Your task to perform on an android device: open app "Spotify: Music and Podcasts" (install if not already installed) Image 0: 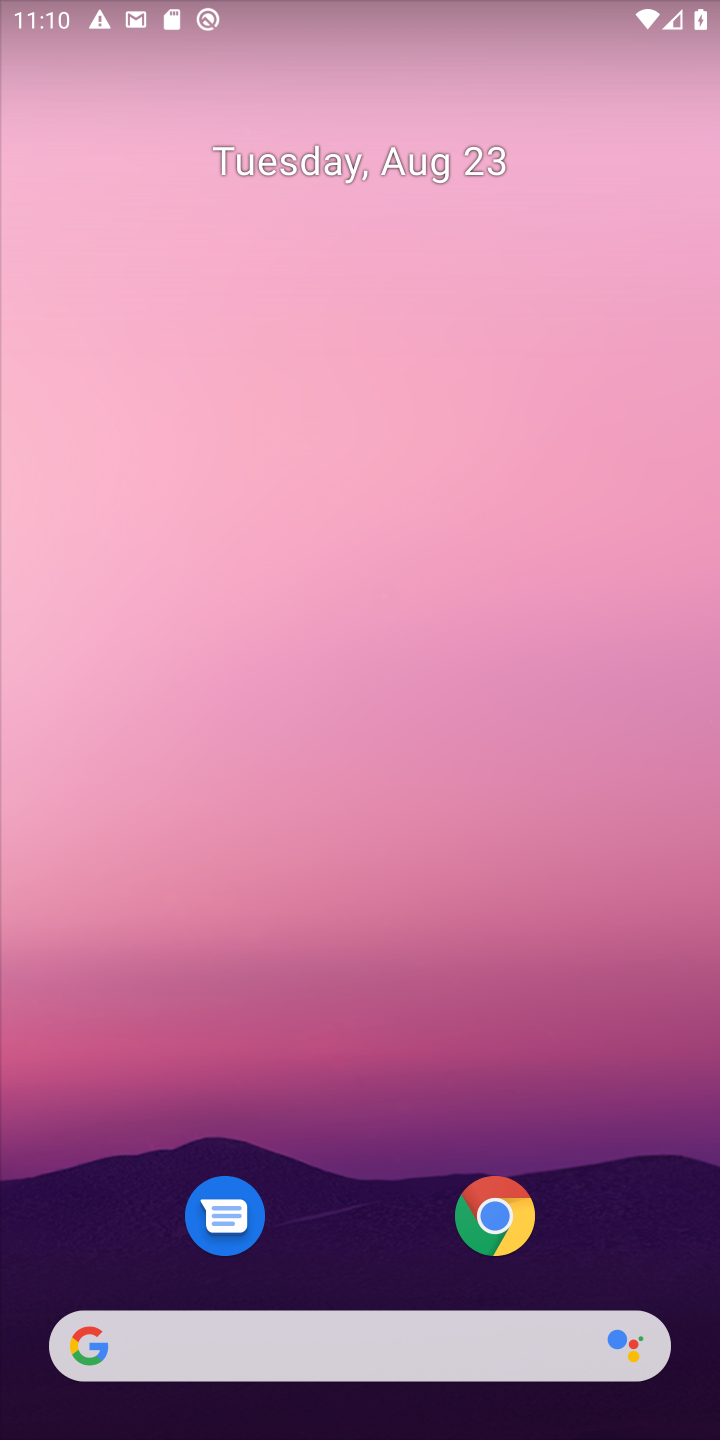
Step 0: press home button
Your task to perform on an android device: open app "Spotify: Music and Podcasts" (install if not already installed) Image 1: 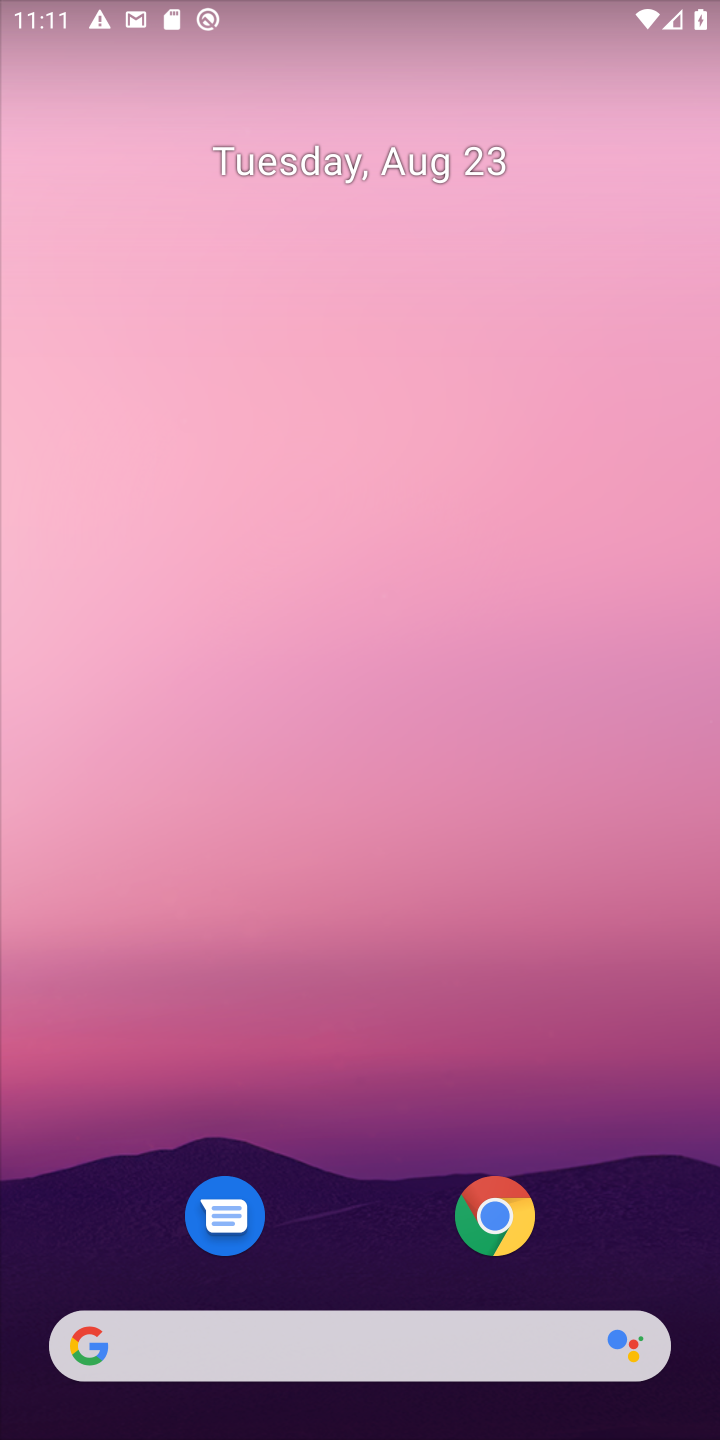
Step 1: drag from (315, 1355) to (618, 261)
Your task to perform on an android device: open app "Spotify: Music and Podcasts" (install if not already installed) Image 2: 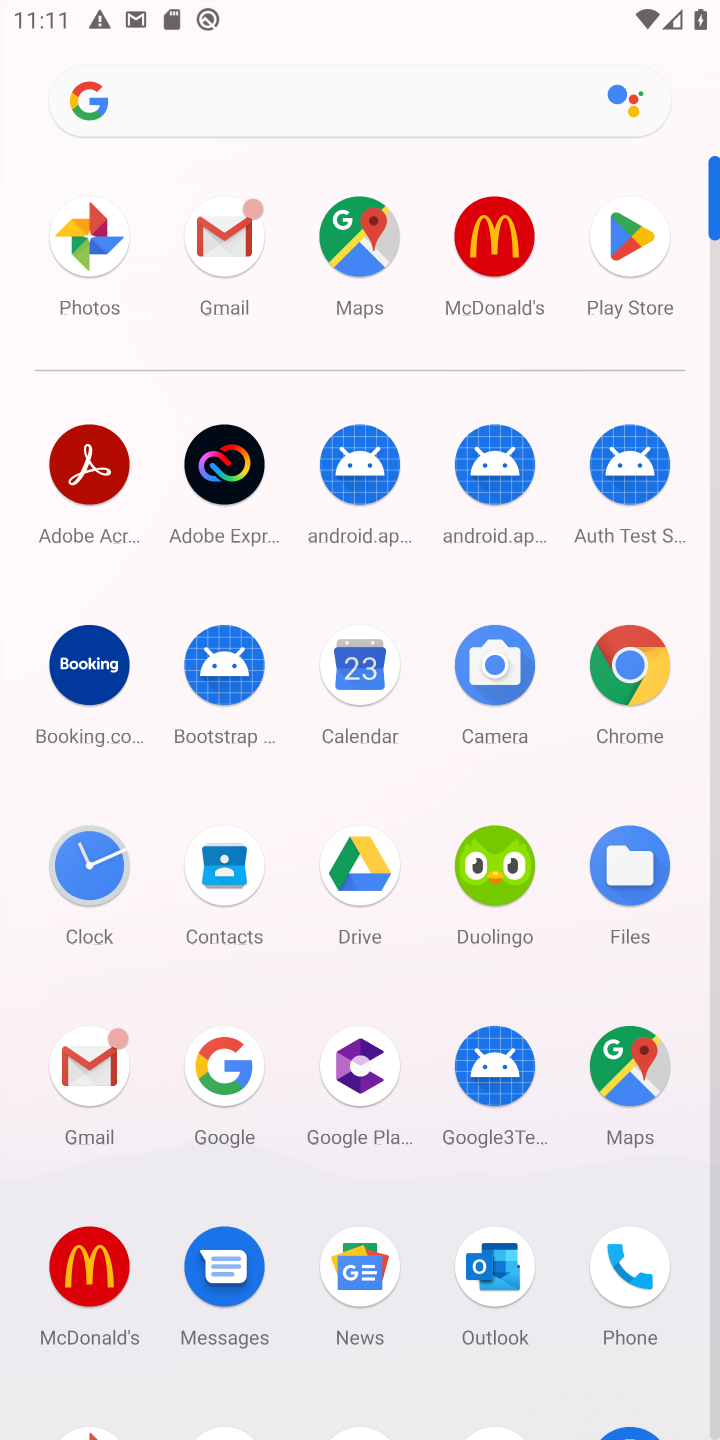
Step 2: click (620, 228)
Your task to perform on an android device: open app "Spotify: Music and Podcasts" (install if not already installed) Image 3: 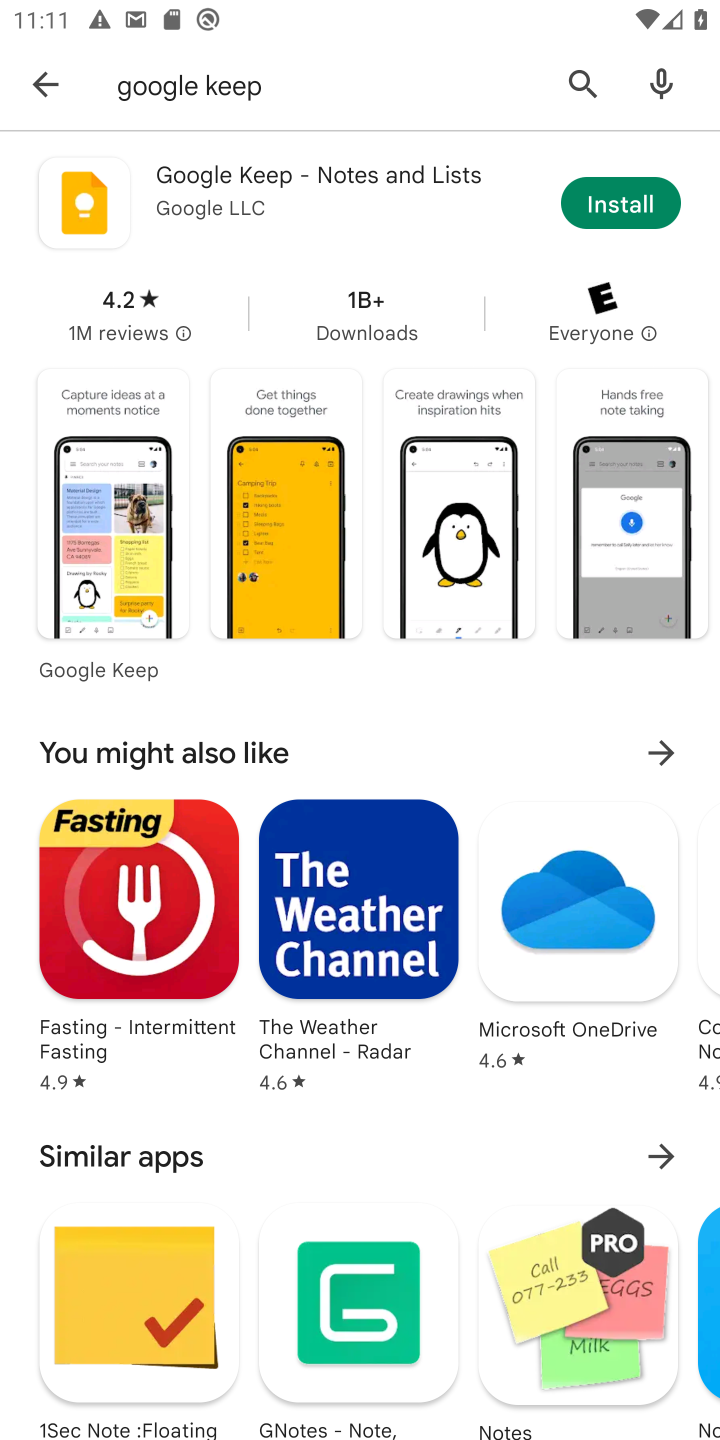
Step 3: press back button
Your task to perform on an android device: open app "Spotify: Music and Podcasts" (install if not already installed) Image 4: 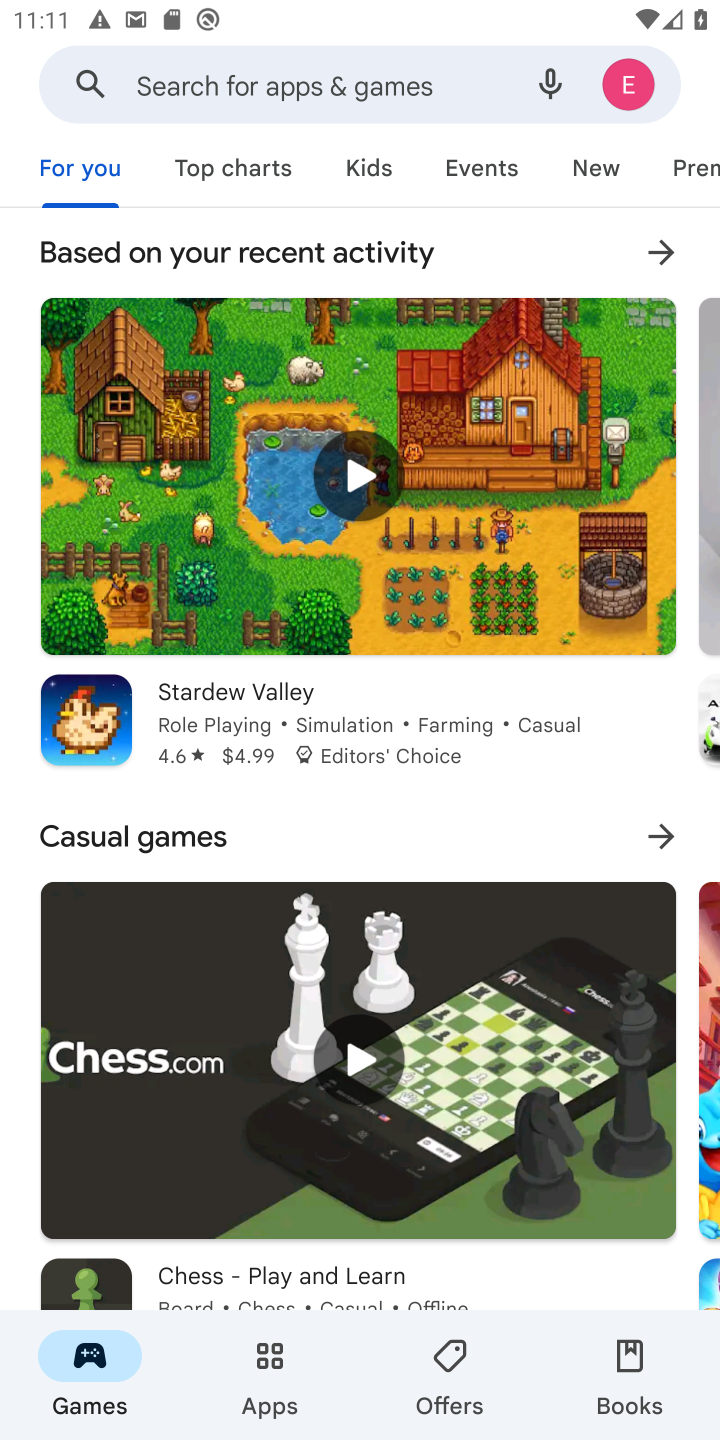
Step 4: click (413, 89)
Your task to perform on an android device: open app "Spotify: Music and Podcasts" (install if not already installed) Image 5: 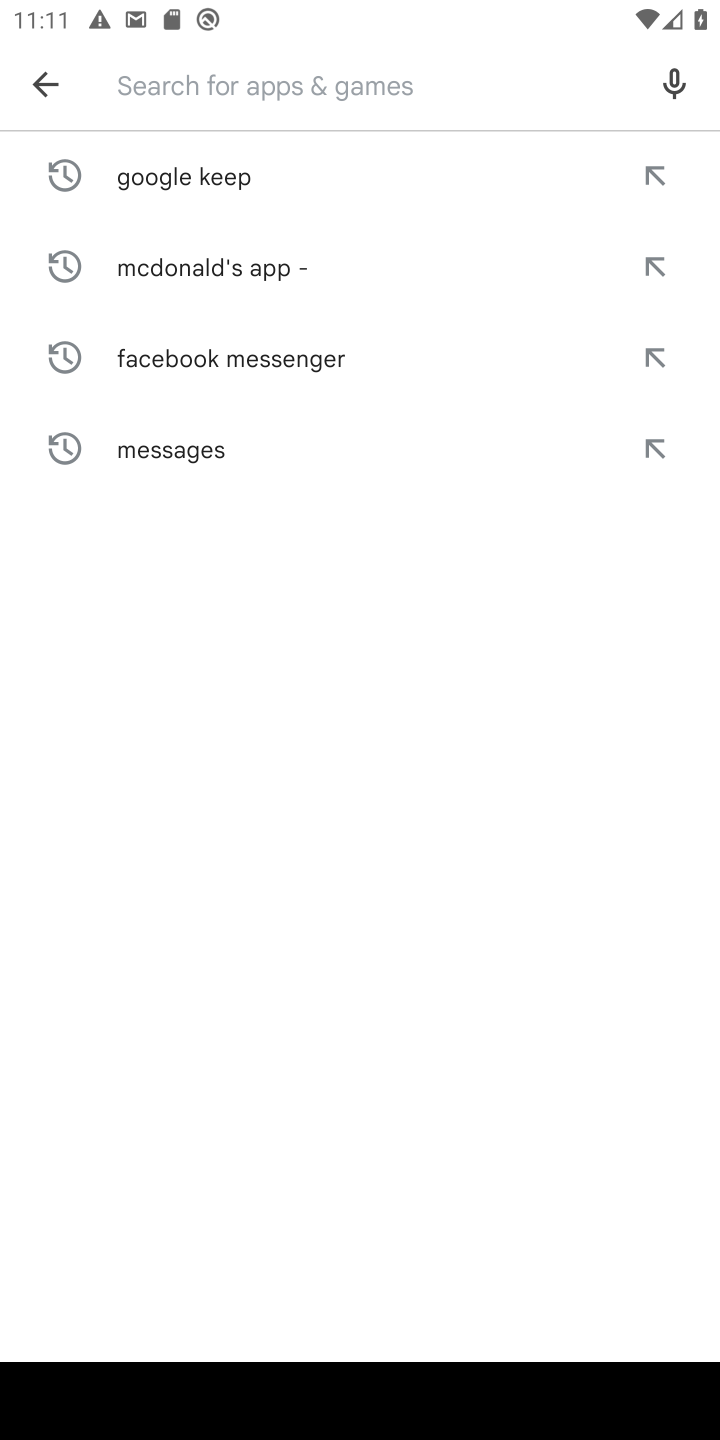
Step 5: type "Spotify: Music and Podcasts"
Your task to perform on an android device: open app "Spotify: Music and Podcasts" (install if not already installed) Image 6: 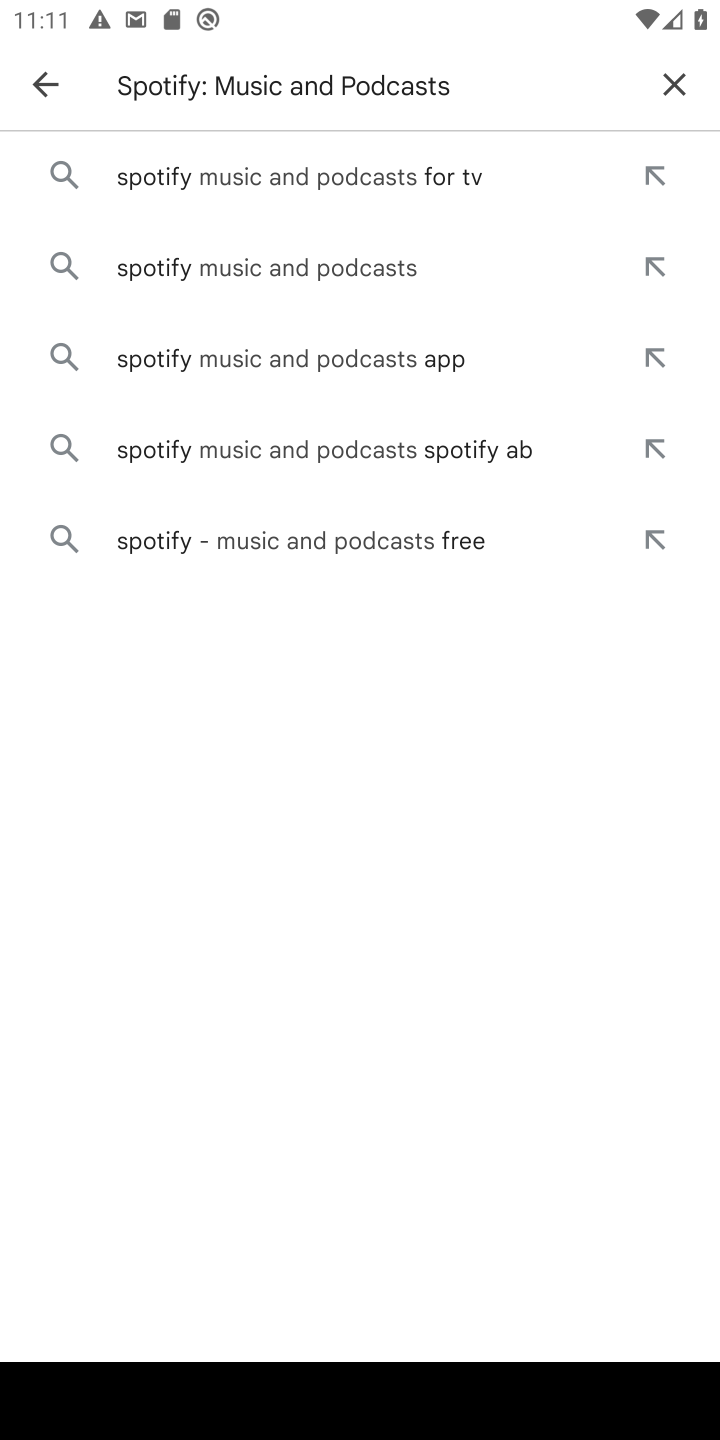
Step 6: click (317, 275)
Your task to perform on an android device: open app "Spotify: Music and Podcasts" (install if not already installed) Image 7: 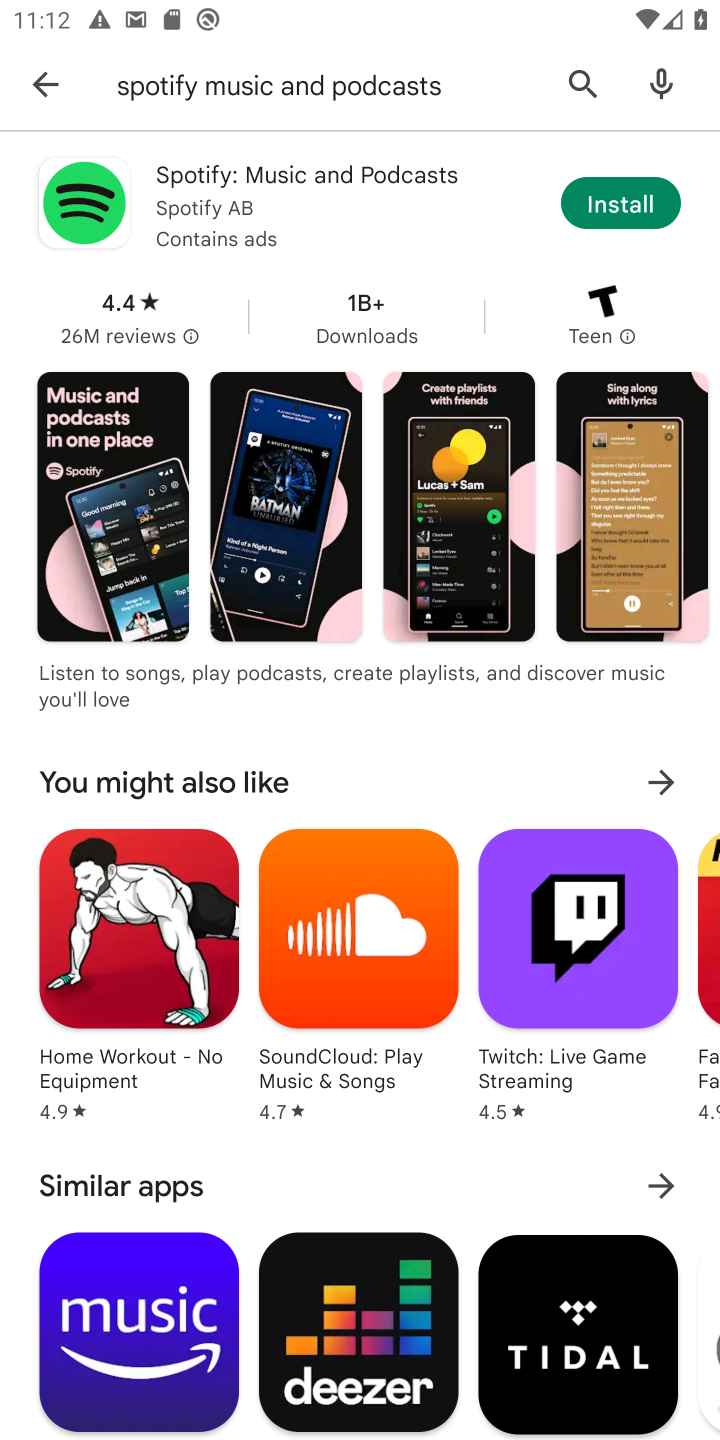
Step 7: click (639, 211)
Your task to perform on an android device: open app "Spotify: Music and Podcasts" (install if not already installed) Image 8: 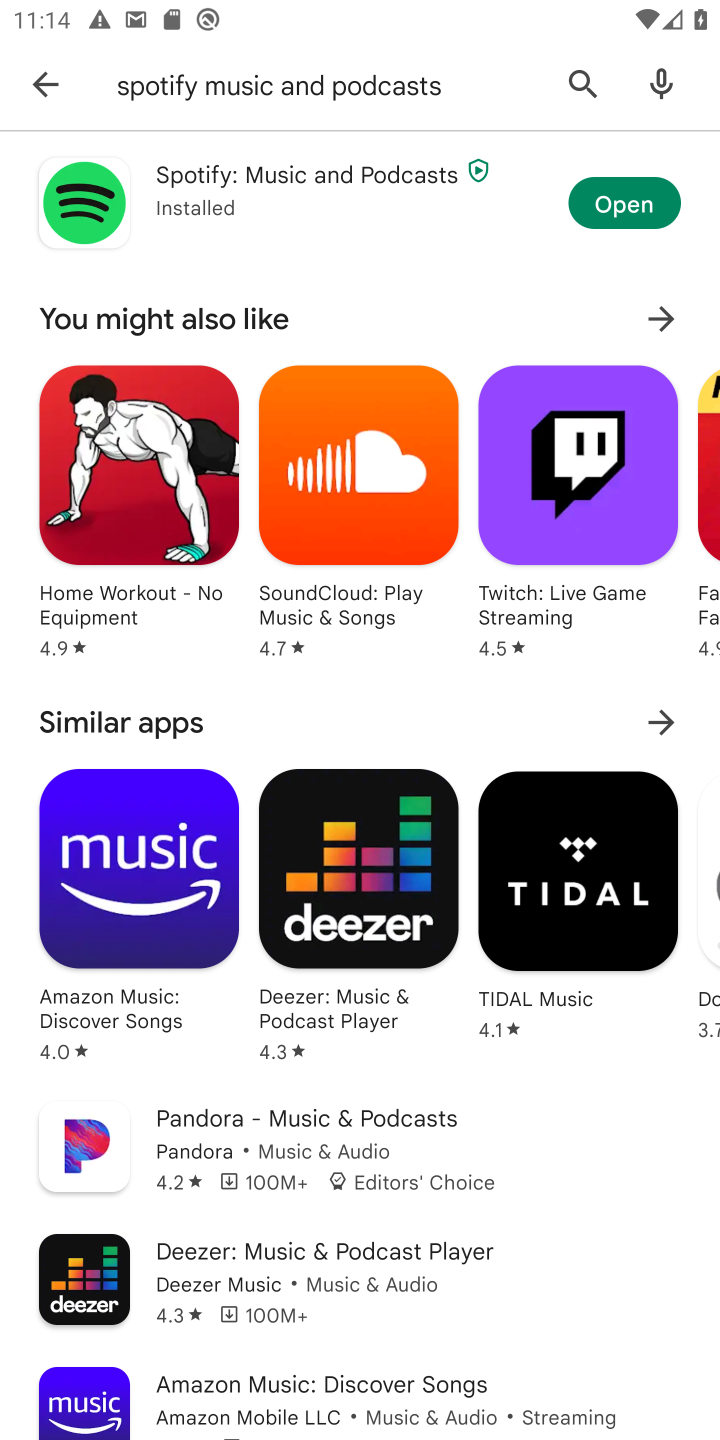
Step 8: click (633, 213)
Your task to perform on an android device: open app "Spotify: Music and Podcasts" (install if not already installed) Image 9: 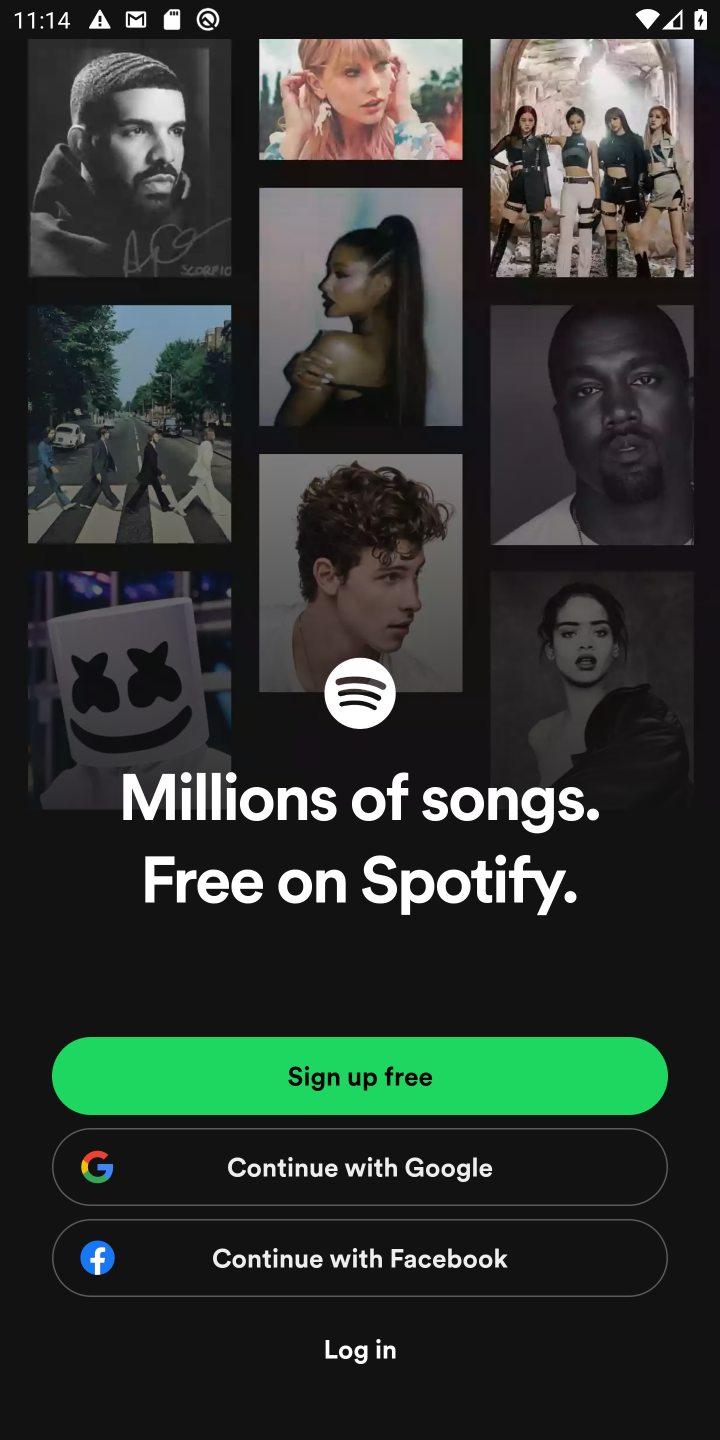
Step 9: task complete